Your task to perform on an android device: toggle notifications settings in the gmail app Image 0: 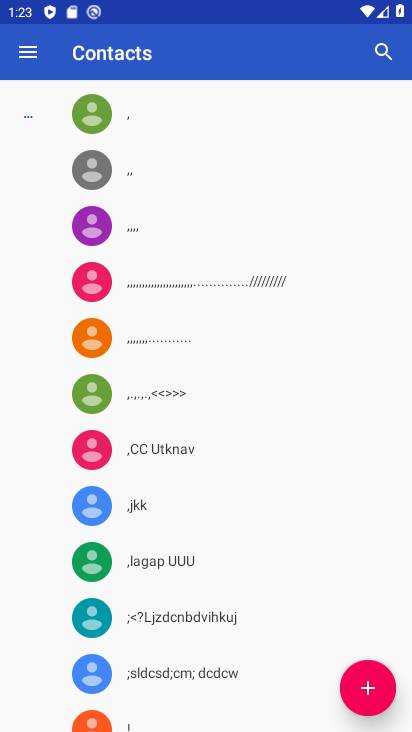
Step 0: press back button
Your task to perform on an android device: toggle notifications settings in the gmail app Image 1: 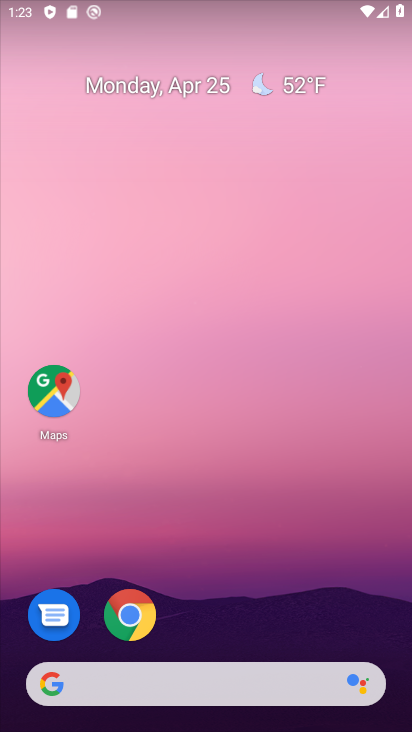
Step 1: drag from (207, 569) to (197, 21)
Your task to perform on an android device: toggle notifications settings in the gmail app Image 2: 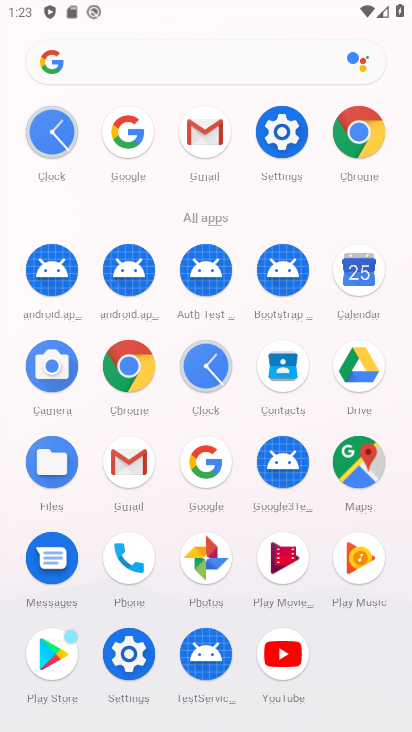
Step 2: click (205, 130)
Your task to perform on an android device: toggle notifications settings in the gmail app Image 3: 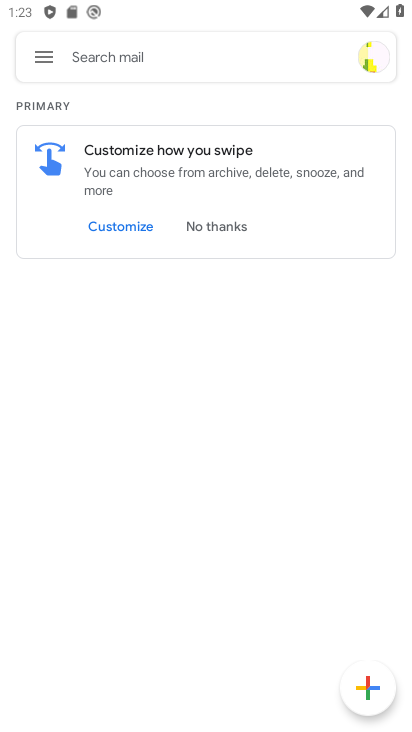
Step 3: click (44, 57)
Your task to perform on an android device: toggle notifications settings in the gmail app Image 4: 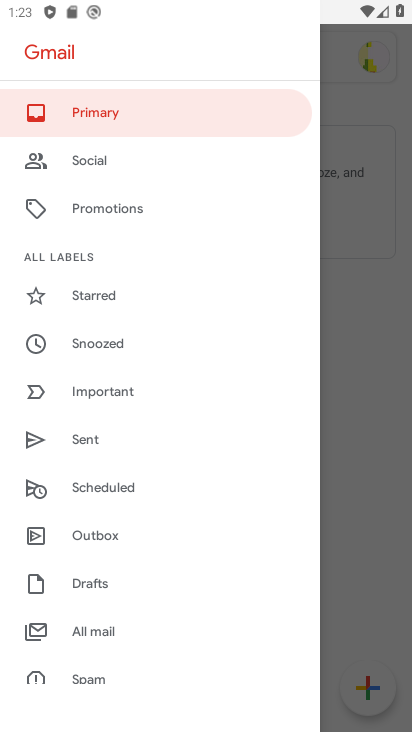
Step 4: drag from (143, 502) to (194, 348)
Your task to perform on an android device: toggle notifications settings in the gmail app Image 5: 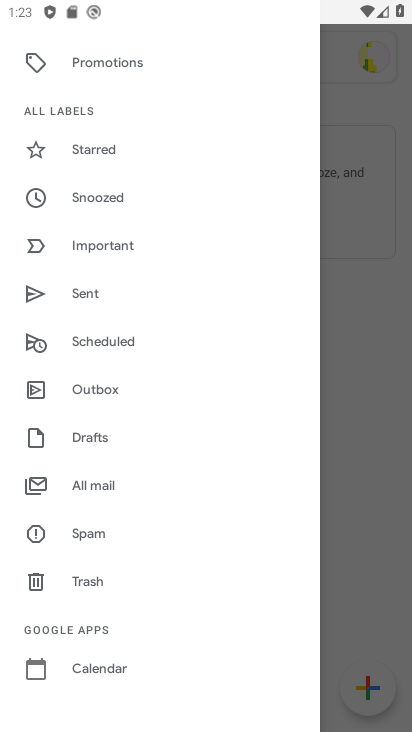
Step 5: drag from (129, 523) to (187, 372)
Your task to perform on an android device: toggle notifications settings in the gmail app Image 6: 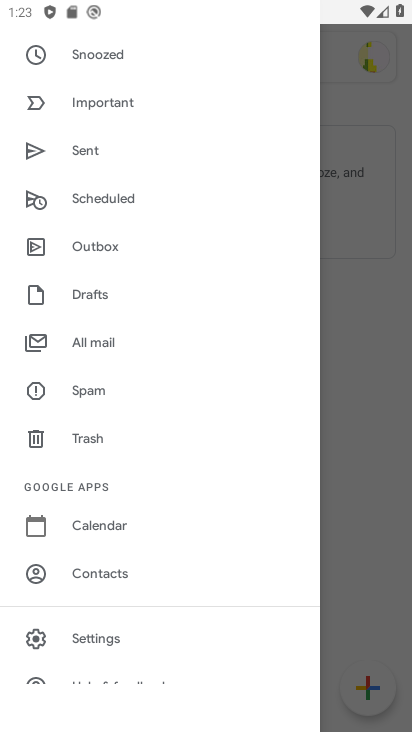
Step 6: click (110, 636)
Your task to perform on an android device: toggle notifications settings in the gmail app Image 7: 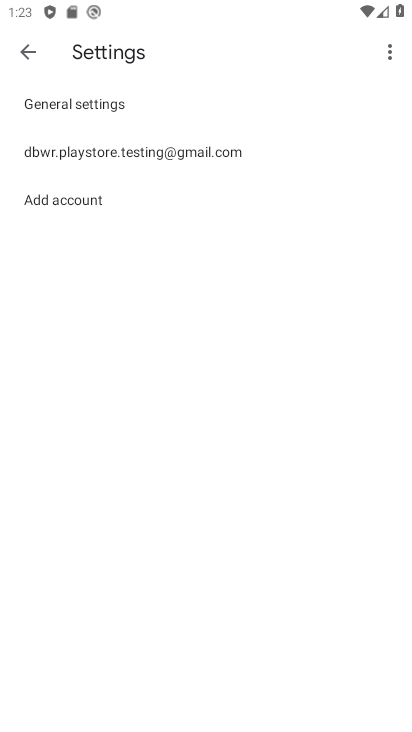
Step 7: click (153, 147)
Your task to perform on an android device: toggle notifications settings in the gmail app Image 8: 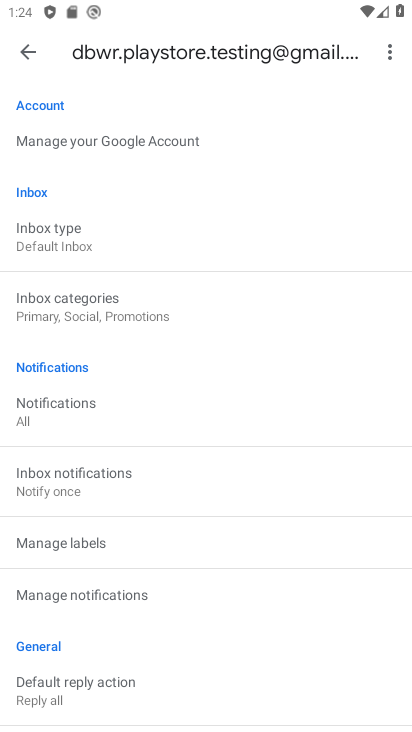
Step 8: click (101, 597)
Your task to perform on an android device: toggle notifications settings in the gmail app Image 9: 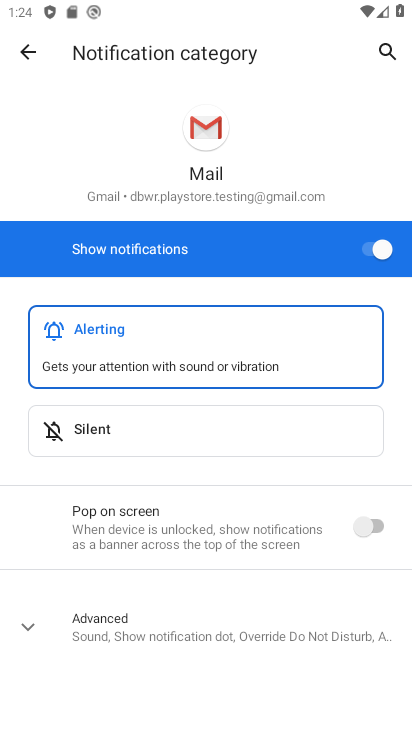
Step 9: click (385, 243)
Your task to perform on an android device: toggle notifications settings in the gmail app Image 10: 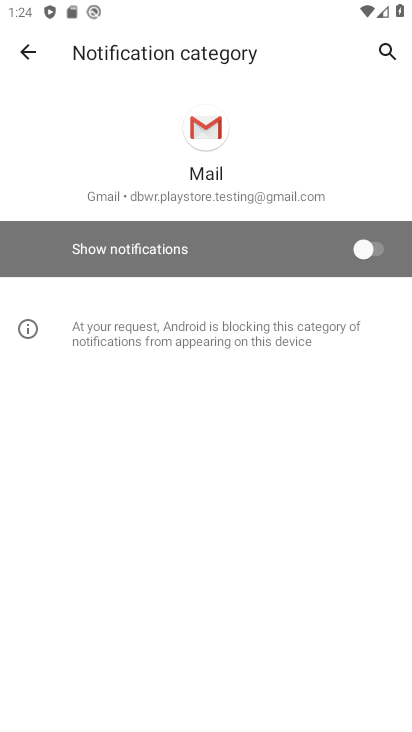
Step 10: task complete